Your task to perform on an android device: turn notification dots off Image 0: 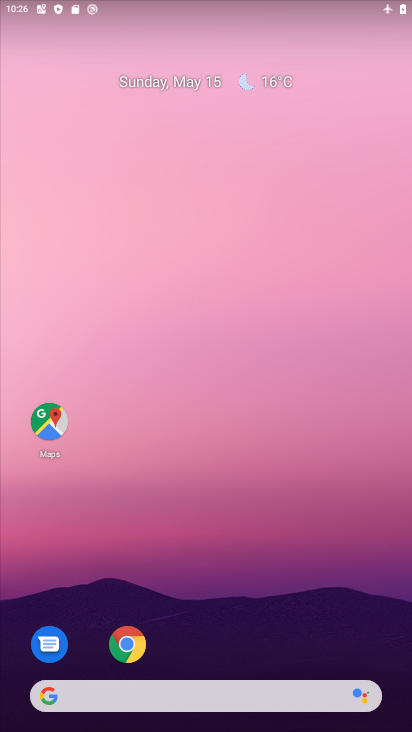
Step 0: drag from (322, 622) to (283, 128)
Your task to perform on an android device: turn notification dots off Image 1: 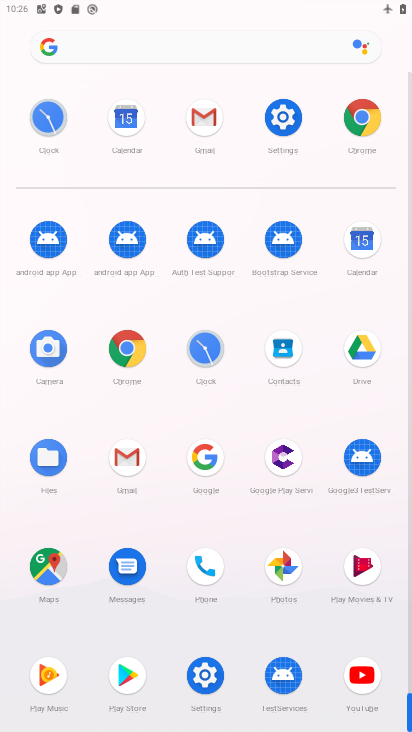
Step 1: click (289, 124)
Your task to perform on an android device: turn notification dots off Image 2: 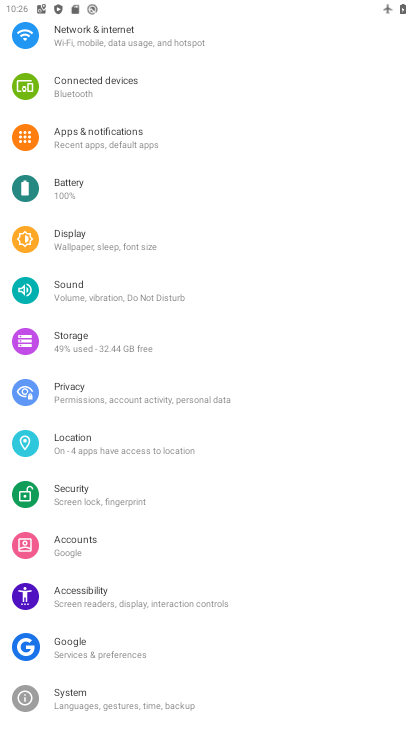
Step 2: click (106, 145)
Your task to perform on an android device: turn notification dots off Image 3: 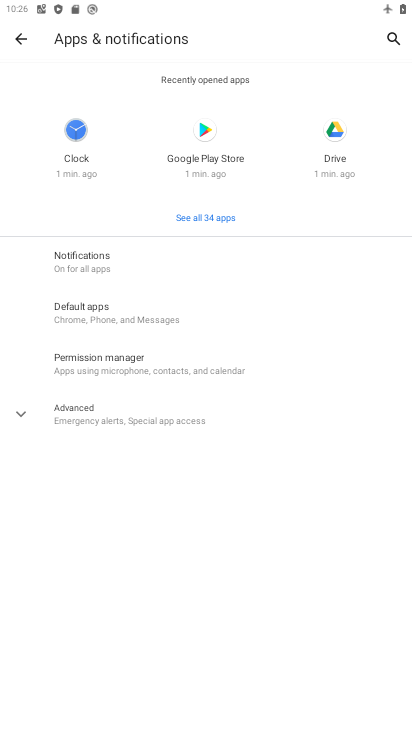
Step 3: click (147, 405)
Your task to perform on an android device: turn notification dots off Image 4: 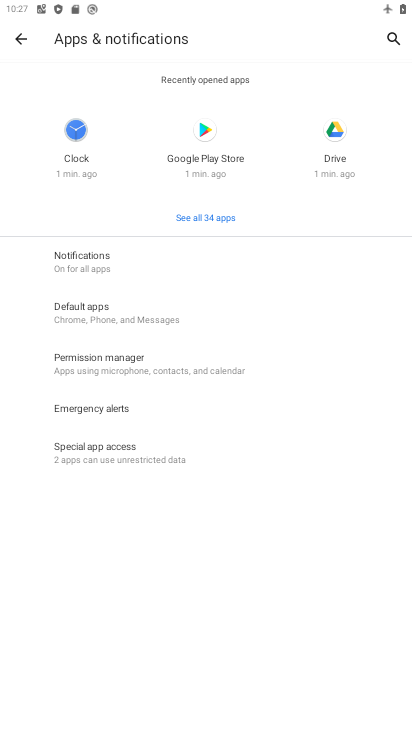
Step 4: click (94, 248)
Your task to perform on an android device: turn notification dots off Image 5: 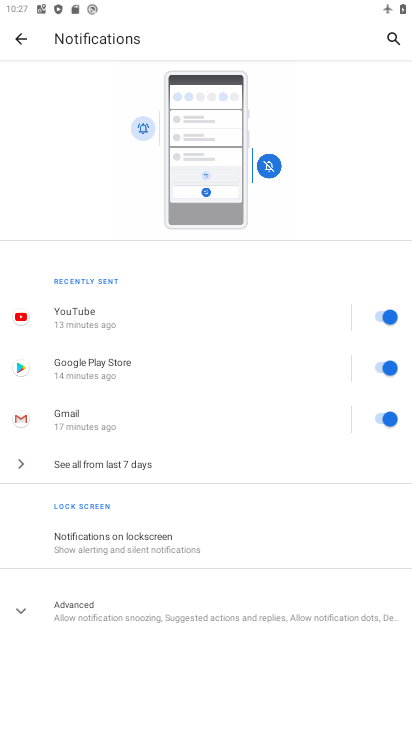
Step 5: click (198, 608)
Your task to perform on an android device: turn notification dots off Image 6: 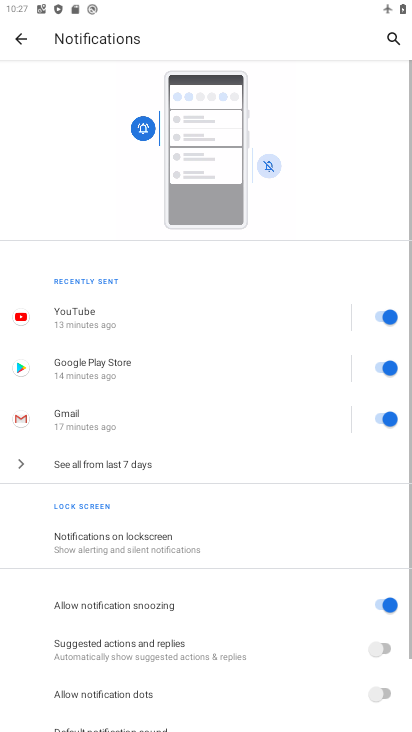
Step 6: task complete